Your task to perform on an android device: Turn off the flashlight Image 0: 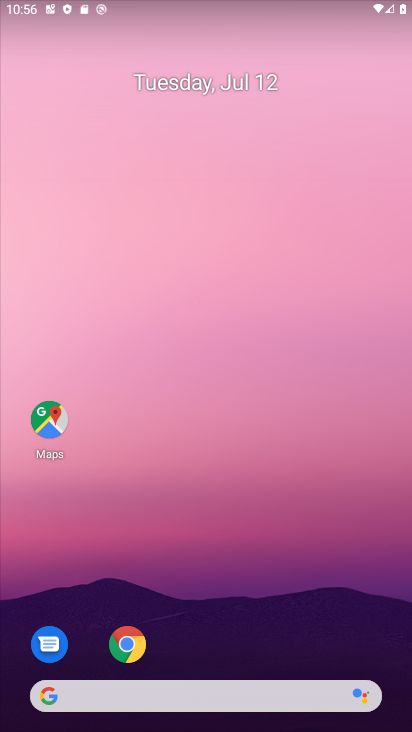
Step 0: press home button
Your task to perform on an android device: Turn off the flashlight Image 1: 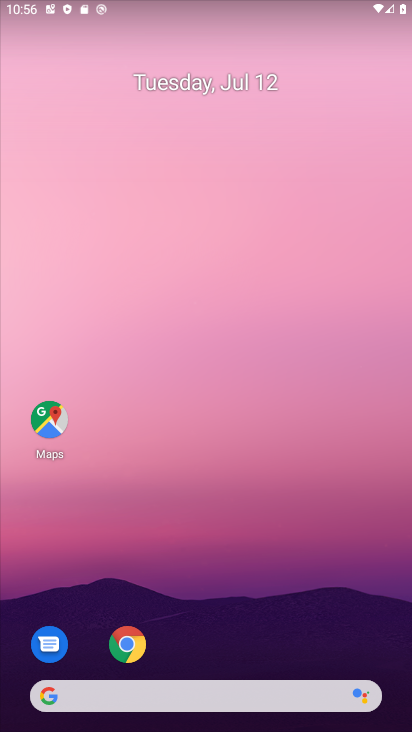
Step 1: drag from (212, 610) to (208, 60)
Your task to perform on an android device: Turn off the flashlight Image 2: 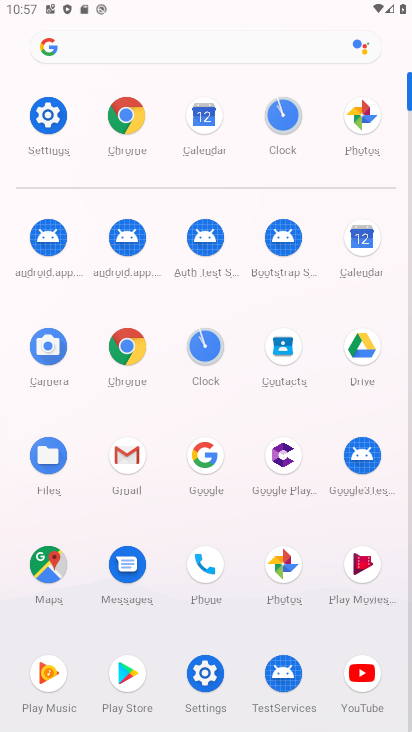
Step 2: click (48, 108)
Your task to perform on an android device: Turn off the flashlight Image 3: 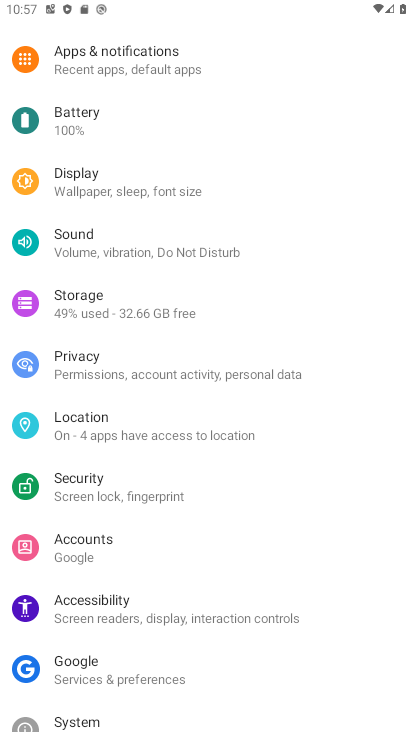
Step 3: drag from (185, 118) to (157, 611)
Your task to perform on an android device: Turn off the flashlight Image 4: 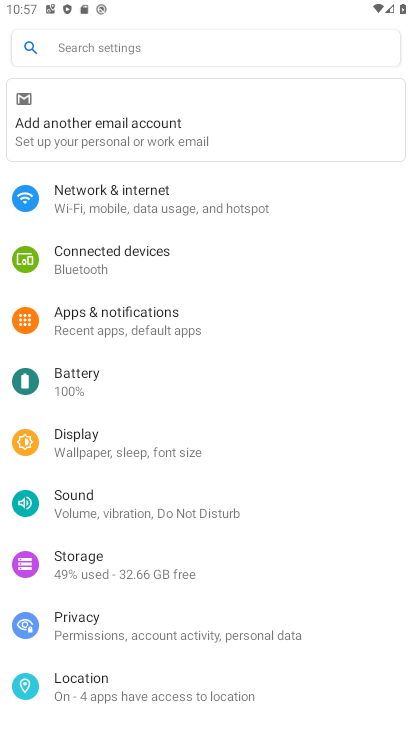
Step 4: click (98, 44)
Your task to perform on an android device: Turn off the flashlight Image 5: 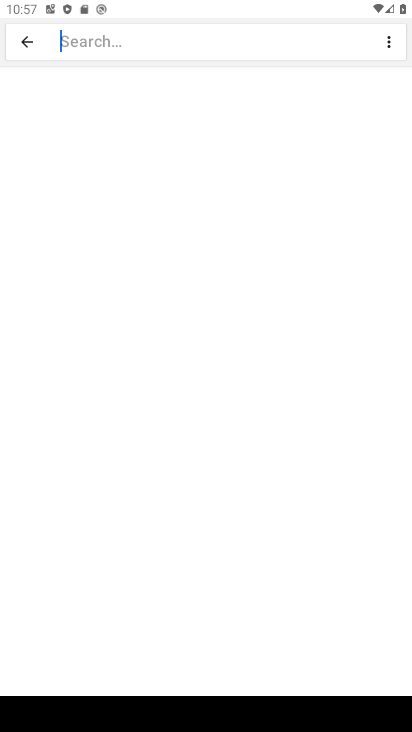
Step 5: type "flashlight"
Your task to perform on an android device: Turn off the flashlight Image 6: 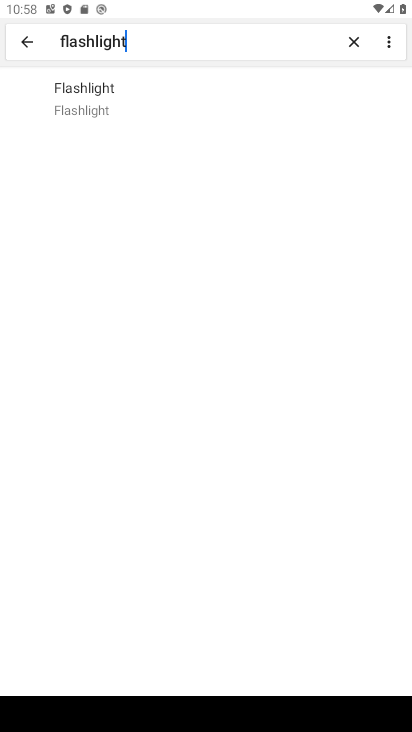
Step 6: click (110, 100)
Your task to perform on an android device: Turn off the flashlight Image 7: 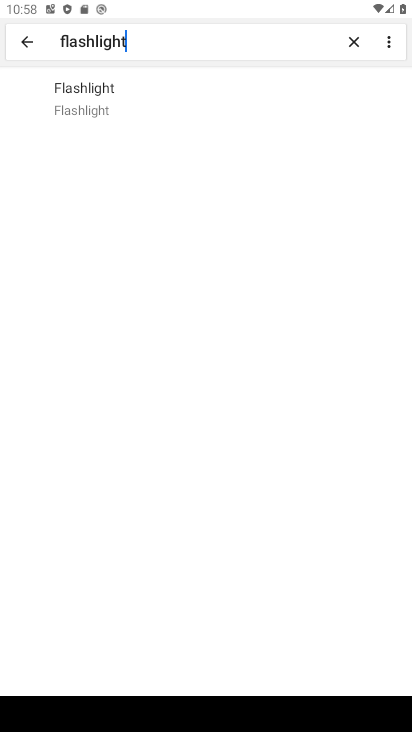
Step 7: task complete